Your task to perform on an android device: Open eBay Image 0: 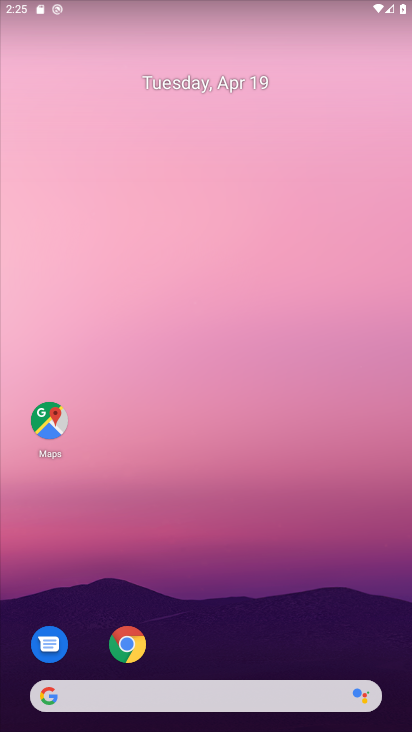
Step 0: click (127, 639)
Your task to perform on an android device: Open eBay Image 1: 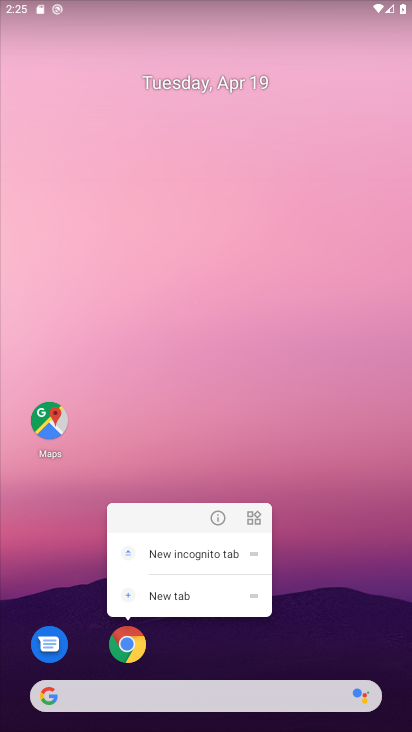
Step 1: click (126, 639)
Your task to perform on an android device: Open eBay Image 2: 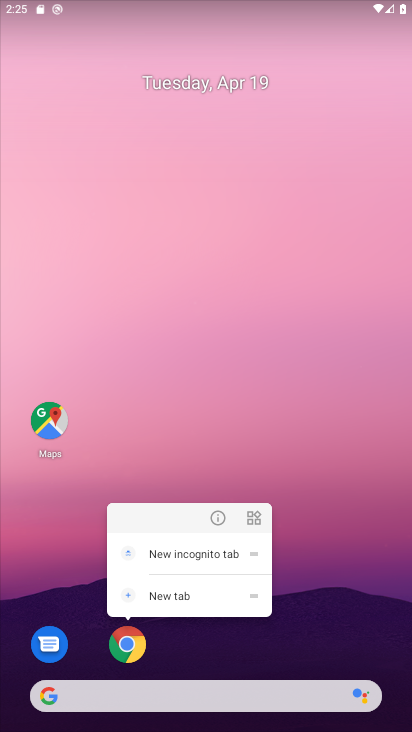
Step 2: click (126, 644)
Your task to perform on an android device: Open eBay Image 3: 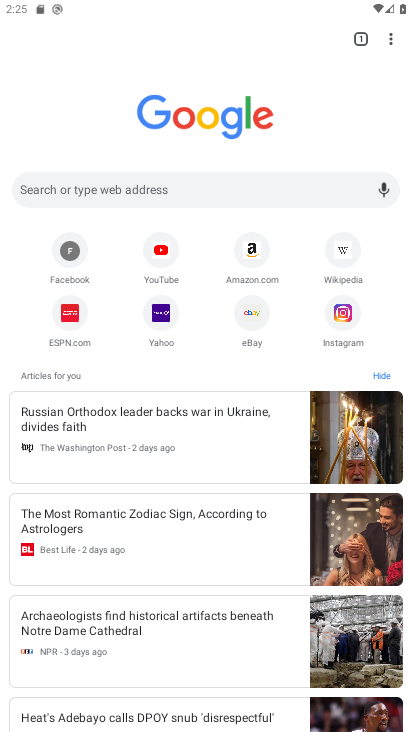
Step 3: click (252, 316)
Your task to perform on an android device: Open eBay Image 4: 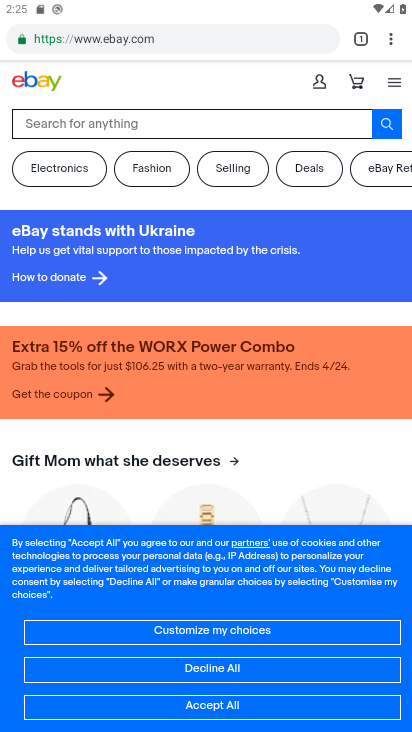
Step 4: task complete